Your task to perform on an android device: Open notification settings Image 0: 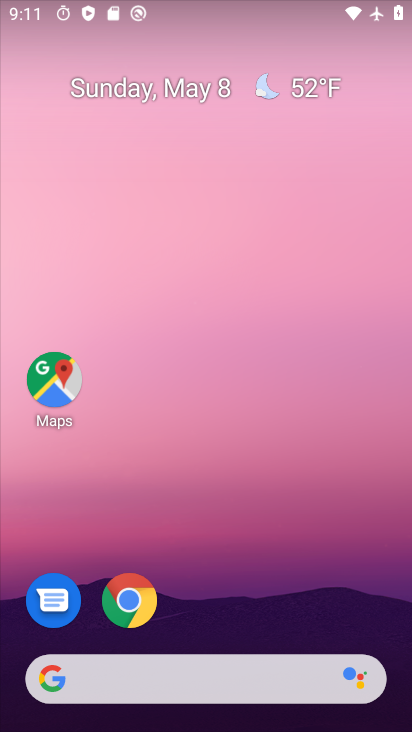
Step 0: drag from (235, 561) to (256, 234)
Your task to perform on an android device: Open notification settings Image 1: 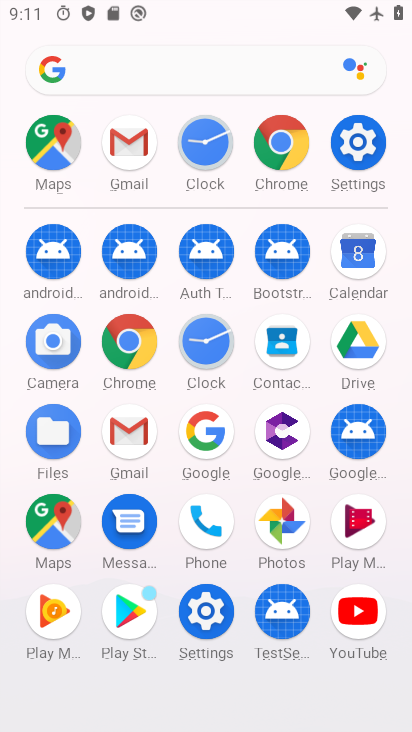
Step 1: click (361, 130)
Your task to perform on an android device: Open notification settings Image 2: 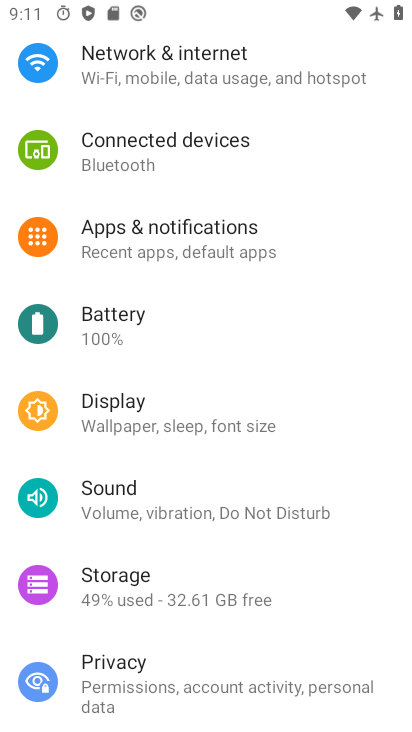
Step 2: click (217, 233)
Your task to perform on an android device: Open notification settings Image 3: 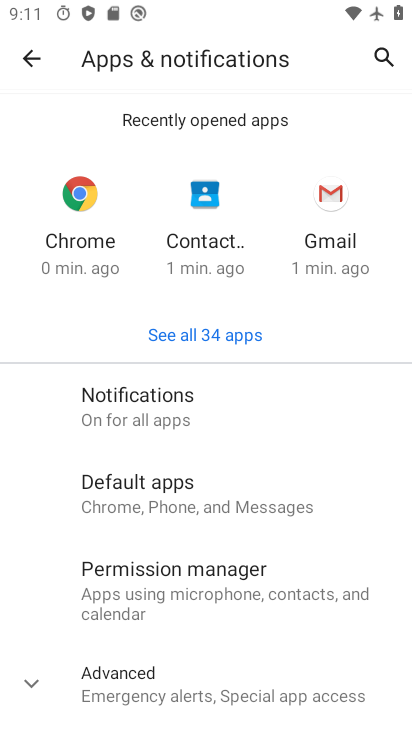
Step 3: click (230, 426)
Your task to perform on an android device: Open notification settings Image 4: 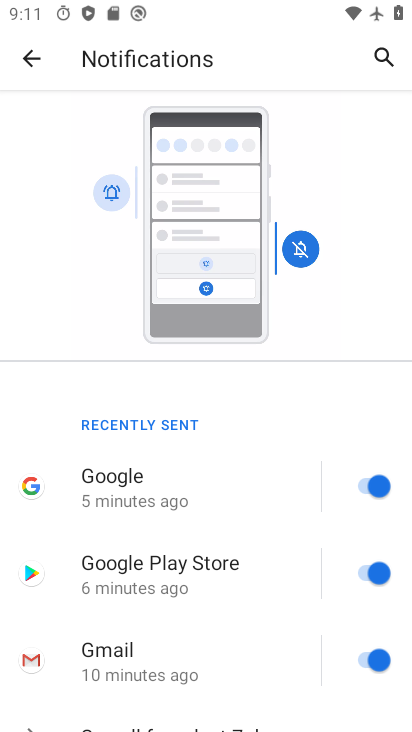
Step 4: task complete